Your task to perform on an android device: Go to wifi settings Image 0: 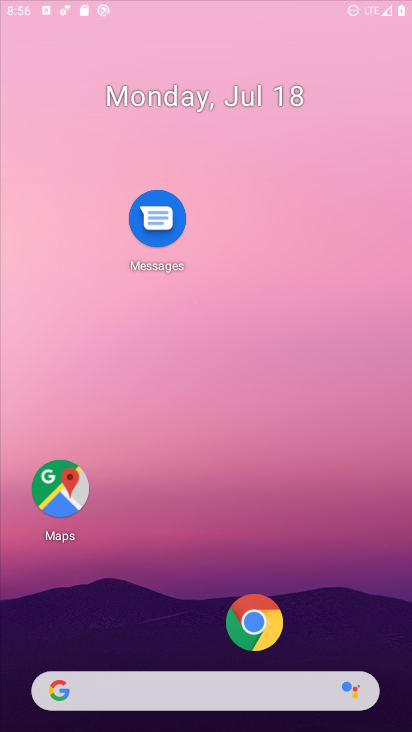
Step 0: click (235, 93)
Your task to perform on an android device: Go to wifi settings Image 1: 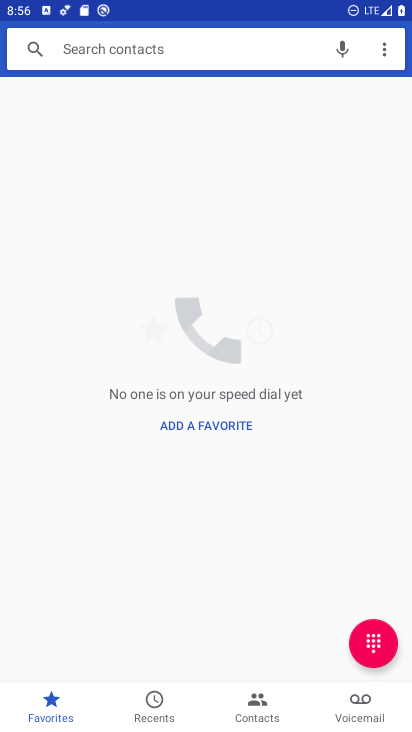
Step 1: press home button
Your task to perform on an android device: Go to wifi settings Image 2: 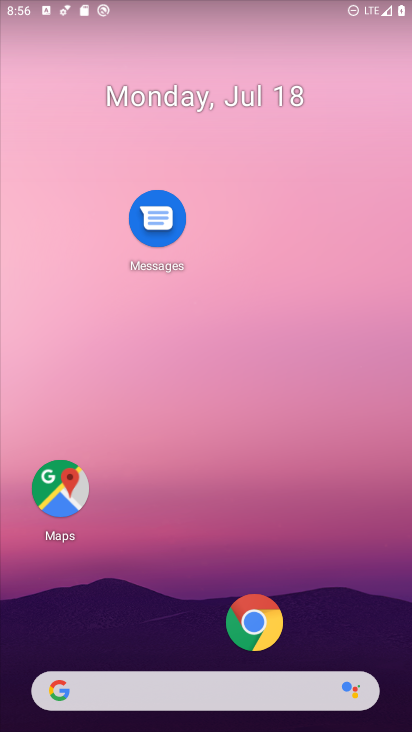
Step 2: drag from (178, 647) to (130, 262)
Your task to perform on an android device: Go to wifi settings Image 3: 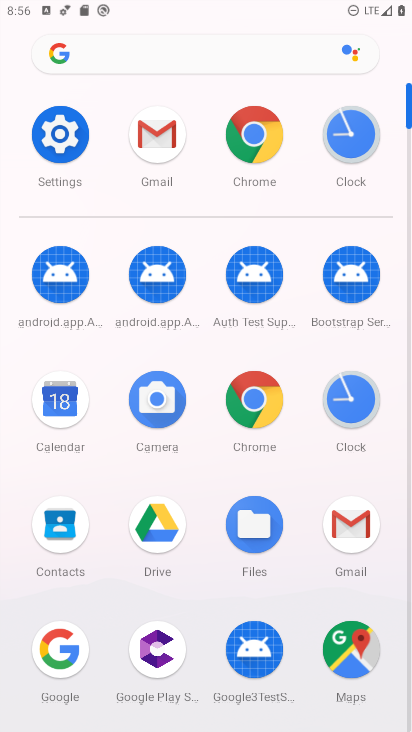
Step 3: click (63, 162)
Your task to perform on an android device: Go to wifi settings Image 4: 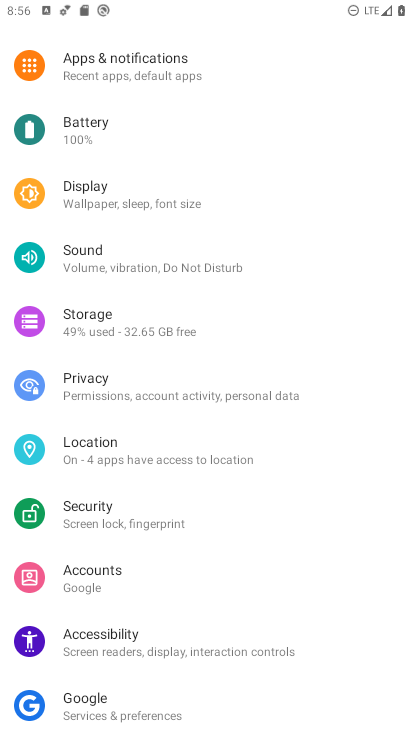
Step 4: drag from (263, 182) to (200, 731)
Your task to perform on an android device: Go to wifi settings Image 5: 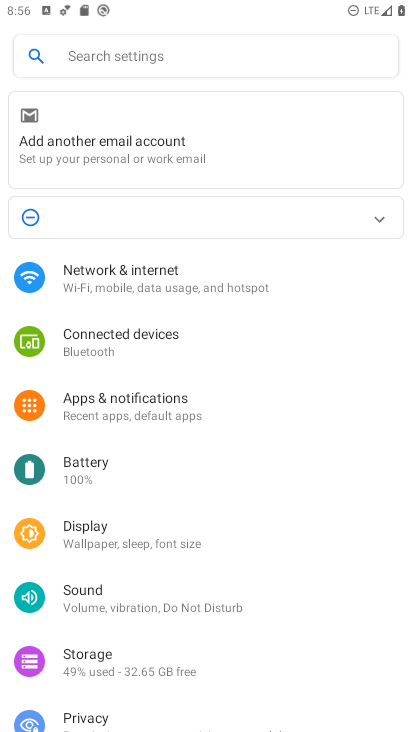
Step 5: click (179, 289)
Your task to perform on an android device: Go to wifi settings Image 6: 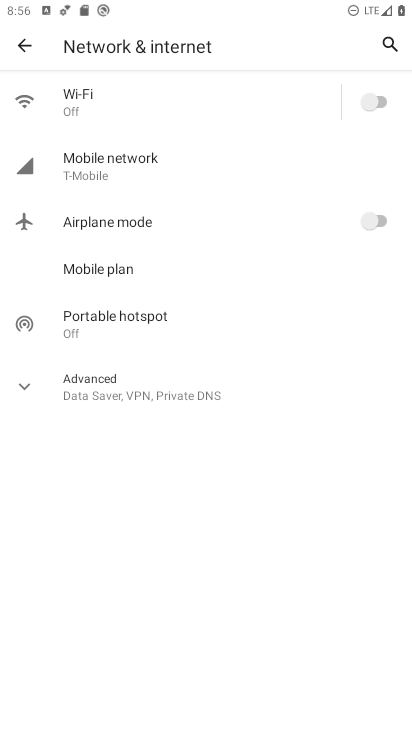
Step 6: click (170, 110)
Your task to perform on an android device: Go to wifi settings Image 7: 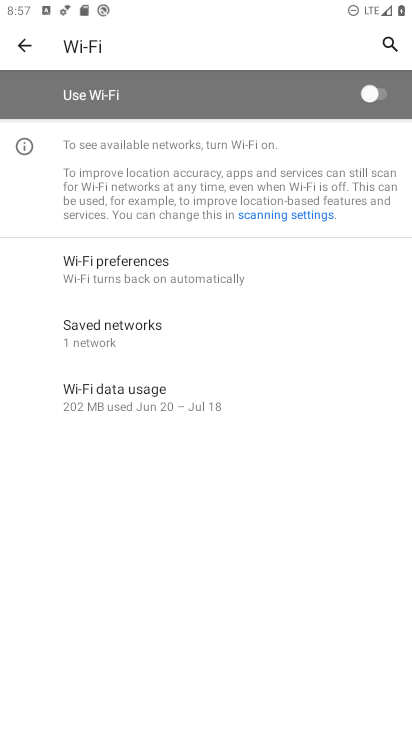
Step 7: task complete